Your task to perform on an android device: turn on translation in the chrome app Image 0: 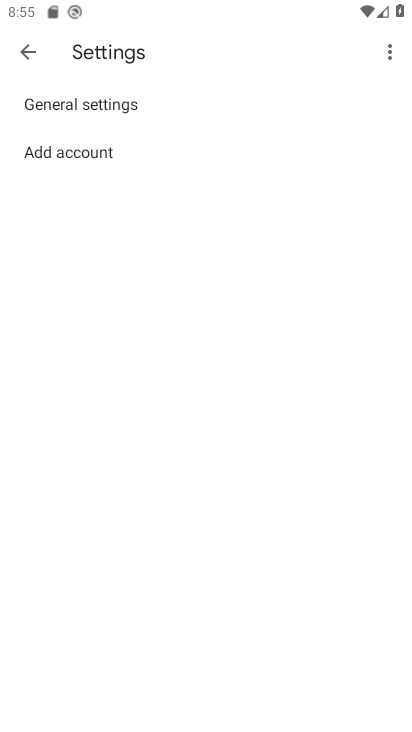
Step 0: press home button
Your task to perform on an android device: turn on translation in the chrome app Image 1: 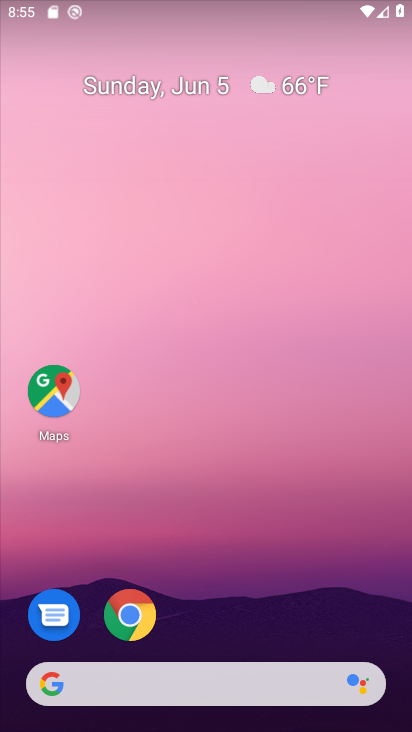
Step 1: click (115, 618)
Your task to perform on an android device: turn on translation in the chrome app Image 2: 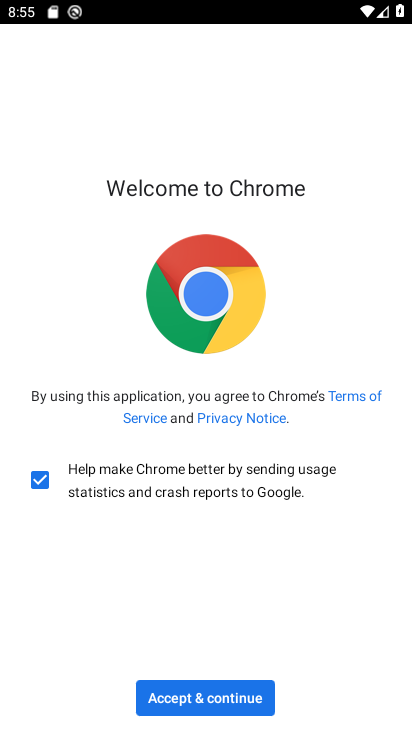
Step 2: click (213, 720)
Your task to perform on an android device: turn on translation in the chrome app Image 3: 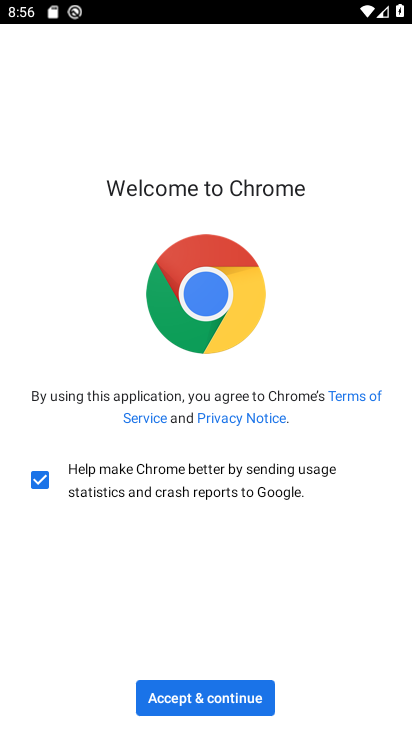
Step 3: click (240, 697)
Your task to perform on an android device: turn on translation in the chrome app Image 4: 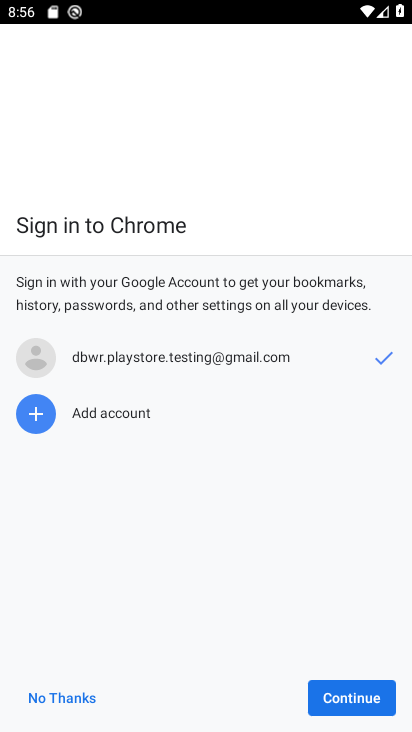
Step 4: click (337, 689)
Your task to perform on an android device: turn on translation in the chrome app Image 5: 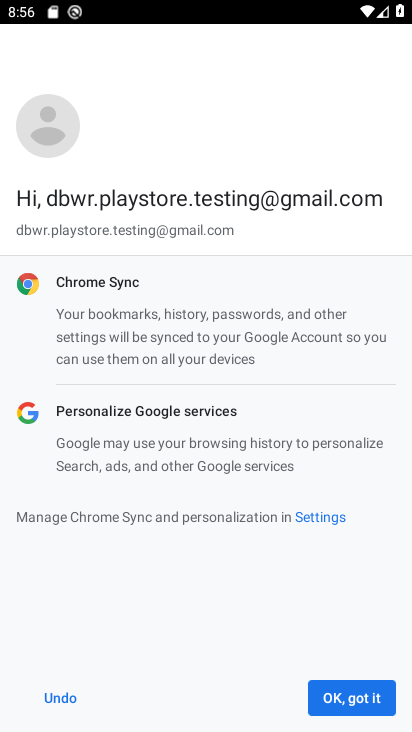
Step 5: click (344, 695)
Your task to perform on an android device: turn on translation in the chrome app Image 6: 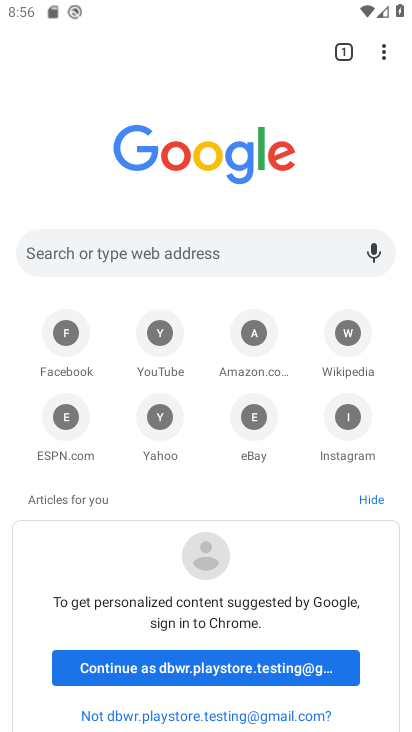
Step 6: drag from (380, 51) to (295, 435)
Your task to perform on an android device: turn on translation in the chrome app Image 7: 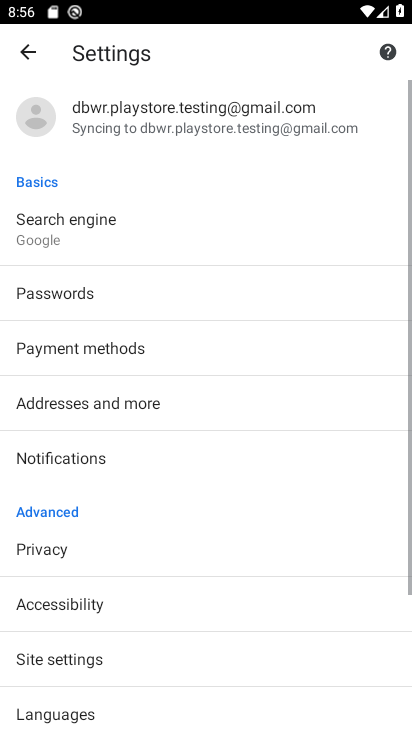
Step 7: drag from (219, 633) to (261, 365)
Your task to perform on an android device: turn on translation in the chrome app Image 8: 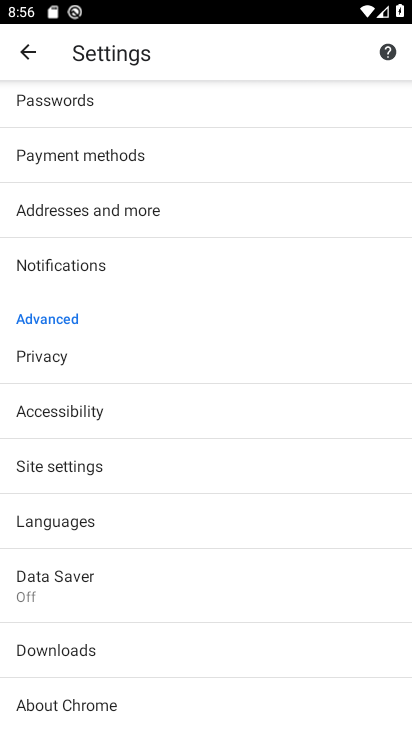
Step 8: click (131, 534)
Your task to perform on an android device: turn on translation in the chrome app Image 9: 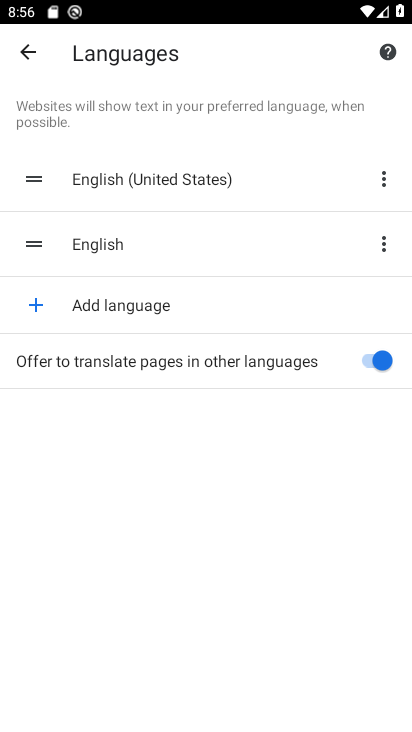
Step 9: task complete